Your task to perform on an android device: turn off notifications in google photos Image 0: 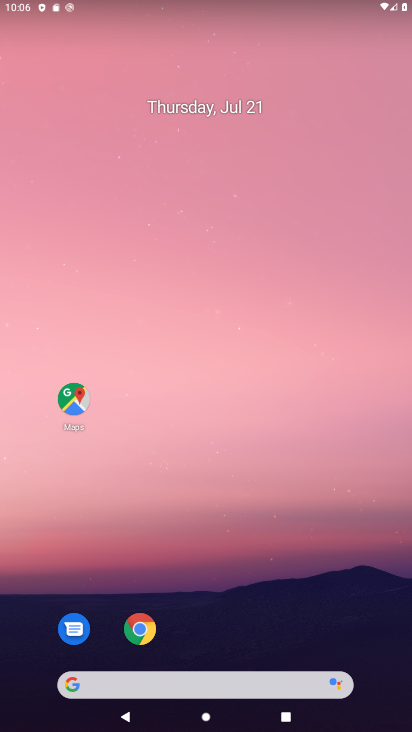
Step 0: press home button
Your task to perform on an android device: turn off notifications in google photos Image 1: 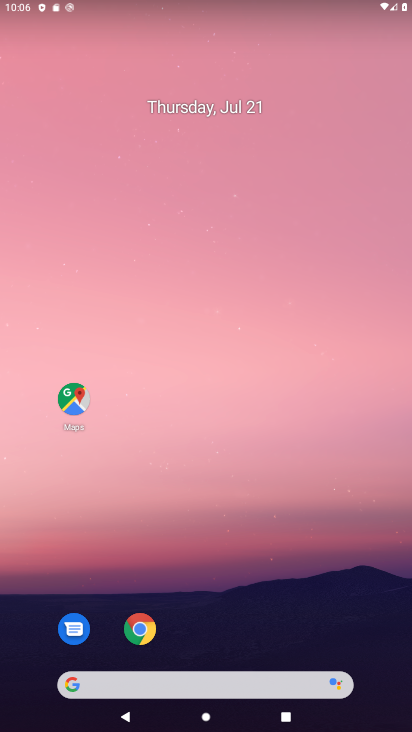
Step 1: drag from (261, 608) to (262, 131)
Your task to perform on an android device: turn off notifications in google photos Image 2: 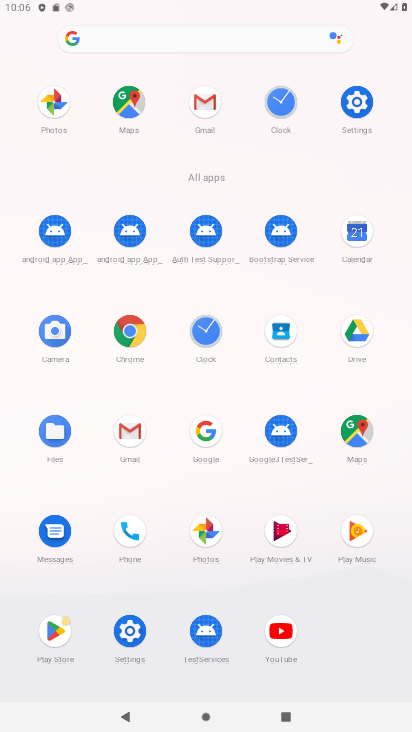
Step 2: click (201, 538)
Your task to perform on an android device: turn off notifications in google photos Image 3: 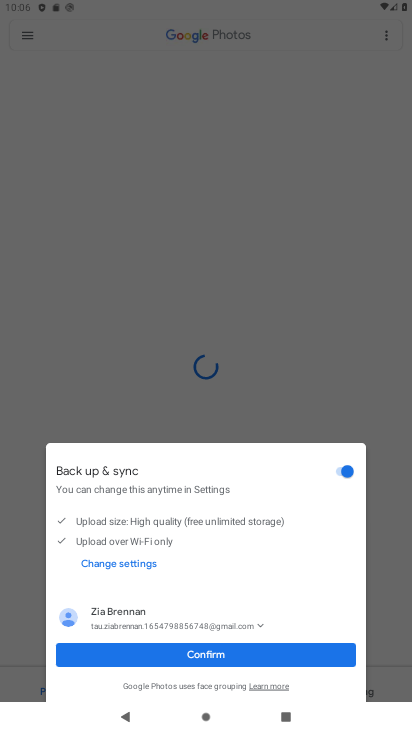
Step 3: click (221, 652)
Your task to perform on an android device: turn off notifications in google photos Image 4: 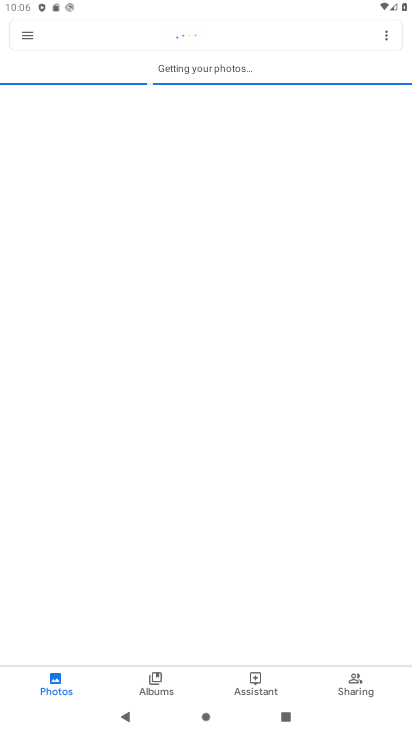
Step 4: click (26, 38)
Your task to perform on an android device: turn off notifications in google photos Image 5: 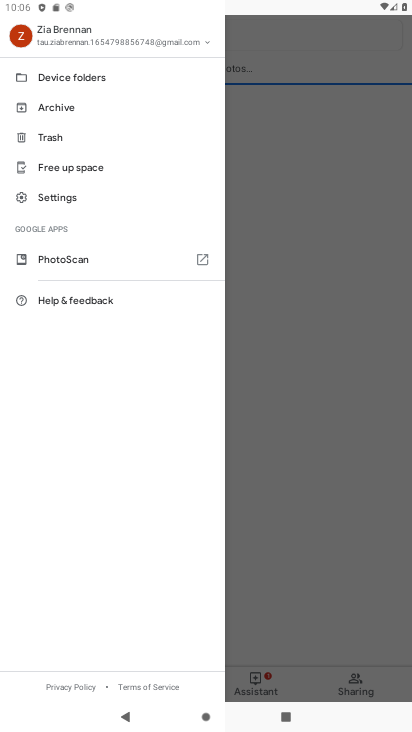
Step 5: click (50, 194)
Your task to perform on an android device: turn off notifications in google photos Image 6: 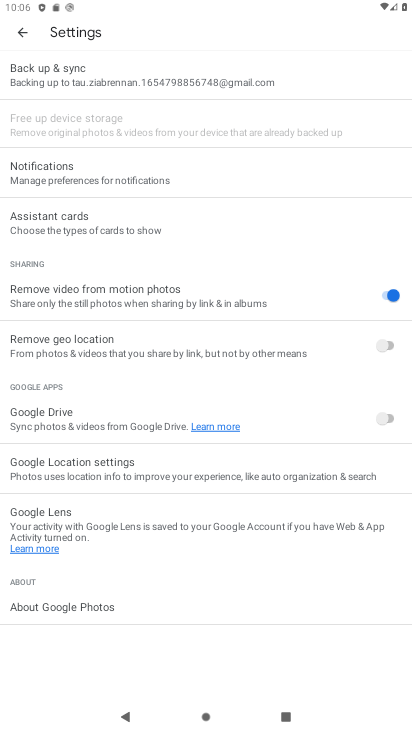
Step 6: click (56, 168)
Your task to perform on an android device: turn off notifications in google photos Image 7: 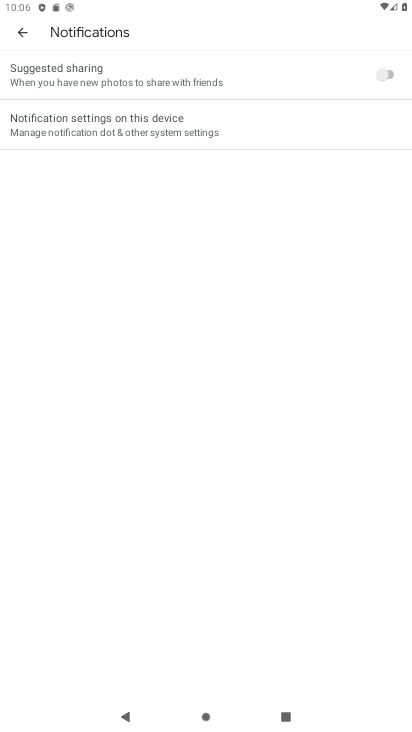
Step 7: click (282, 116)
Your task to perform on an android device: turn off notifications in google photos Image 8: 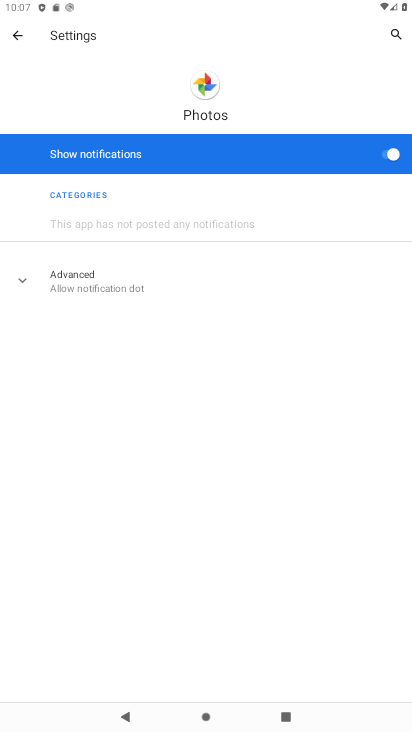
Step 8: click (388, 161)
Your task to perform on an android device: turn off notifications in google photos Image 9: 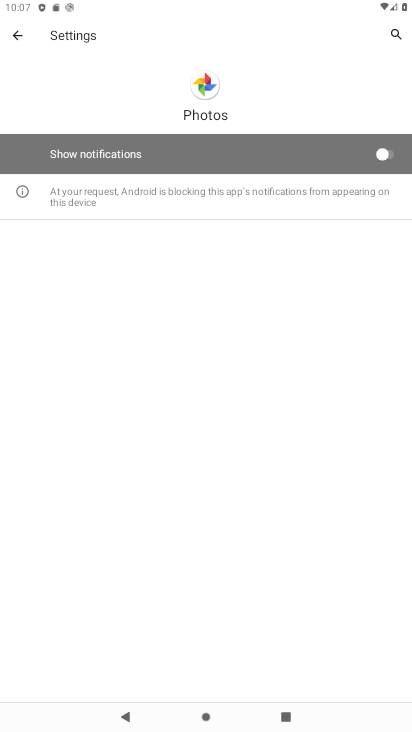
Step 9: task complete